Your task to perform on an android device: open a bookmark in the chrome app Image 0: 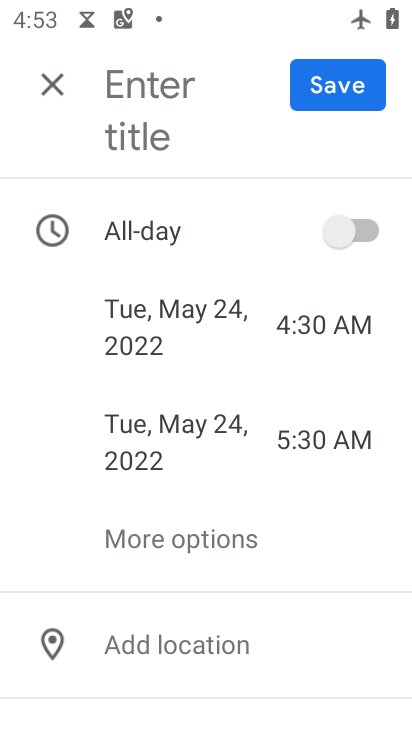
Step 0: press home button
Your task to perform on an android device: open a bookmark in the chrome app Image 1: 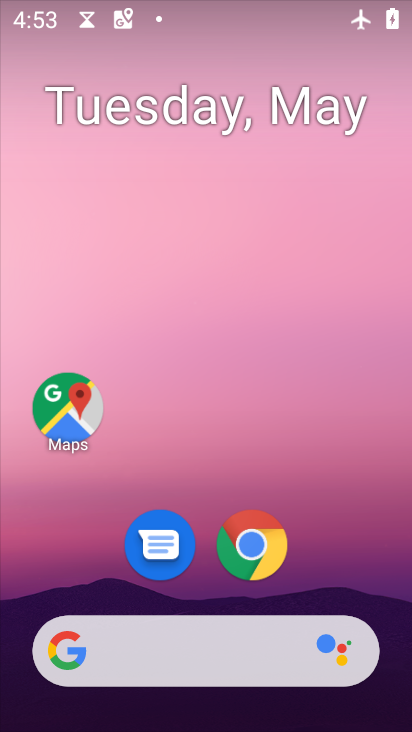
Step 1: click (248, 542)
Your task to perform on an android device: open a bookmark in the chrome app Image 2: 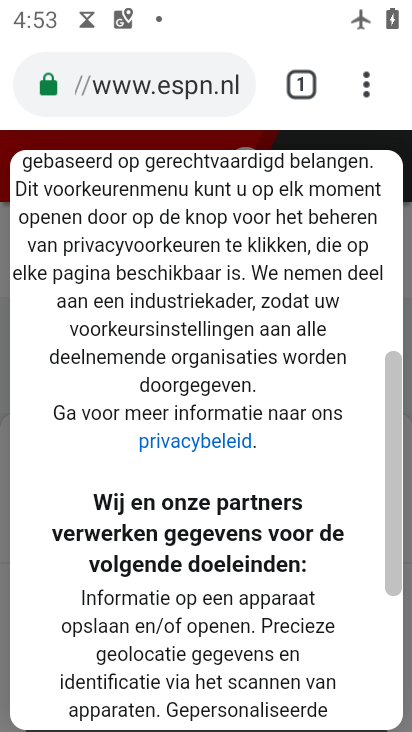
Step 2: click (367, 89)
Your task to perform on an android device: open a bookmark in the chrome app Image 3: 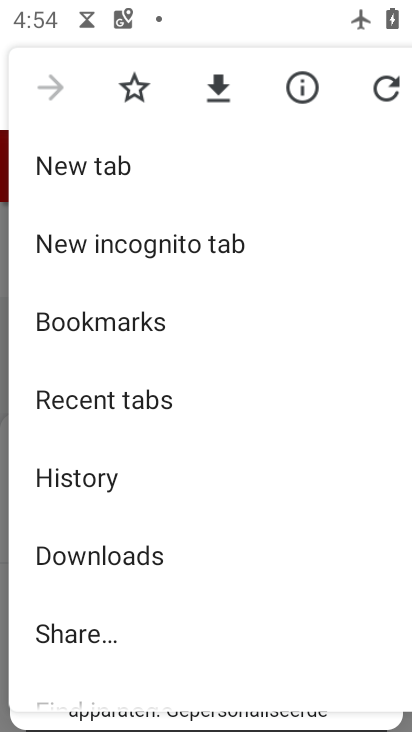
Step 3: click (149, 331)
Your task to perform on an android device: open a bookmark in the chrome app Image 4: 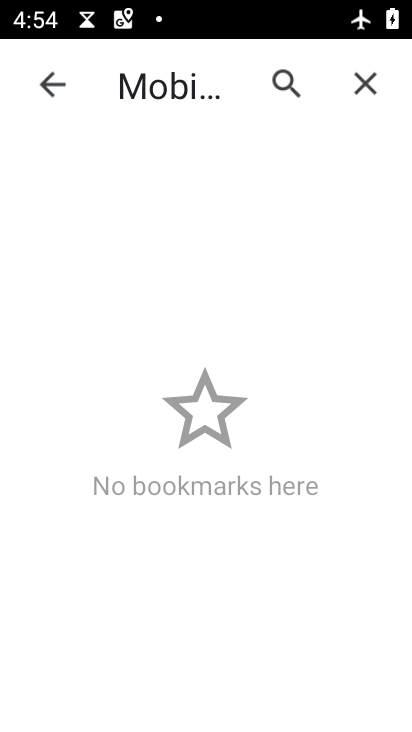
Step 4: task complete